Your task to perform on an android device: turn on location history Image 0: 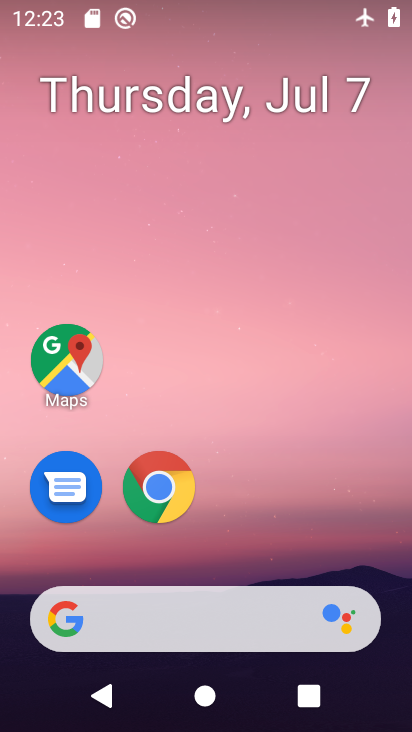
Step 0: drag from (358, 537) to (379, 147)
Your task to perform on an android device: turn on location history Image 1: 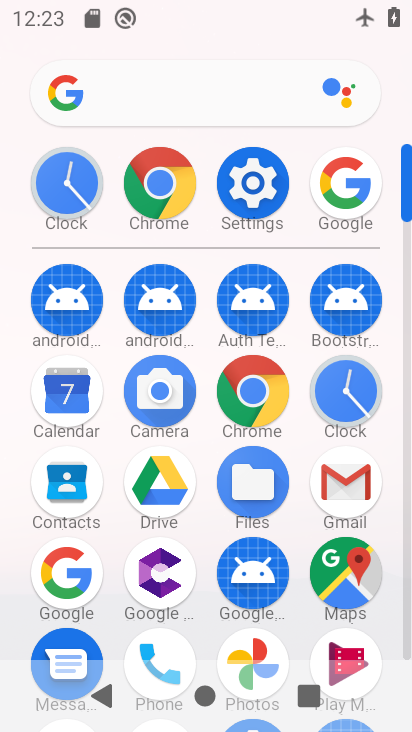
Step 1: click (259, 200)
Your task to perform on an android device: turn on location history Image 2: 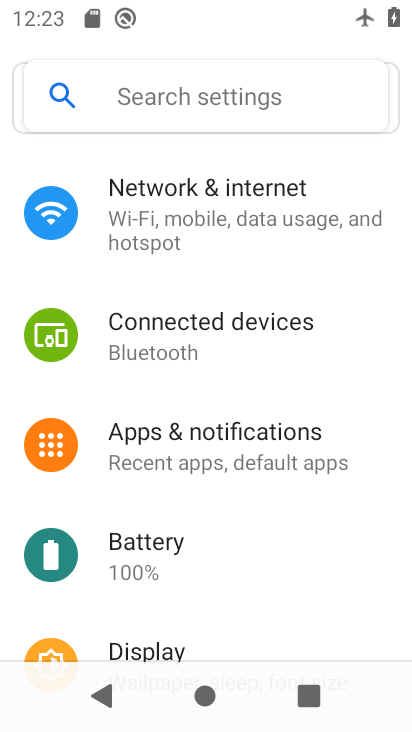
Step 2: drag from (367, 460) to (378, 317)
Your task to perform on an android device: turn on location history Image 3: 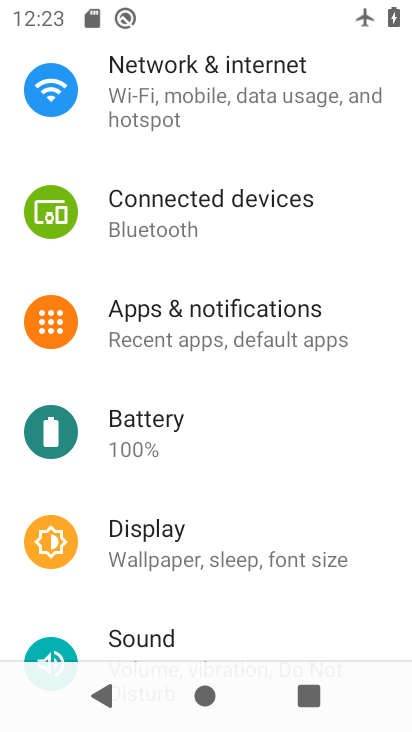
Step 3: drag from (355, 491) to (331, 338)
Your task to perform on an android device: turn on location history Image 4: 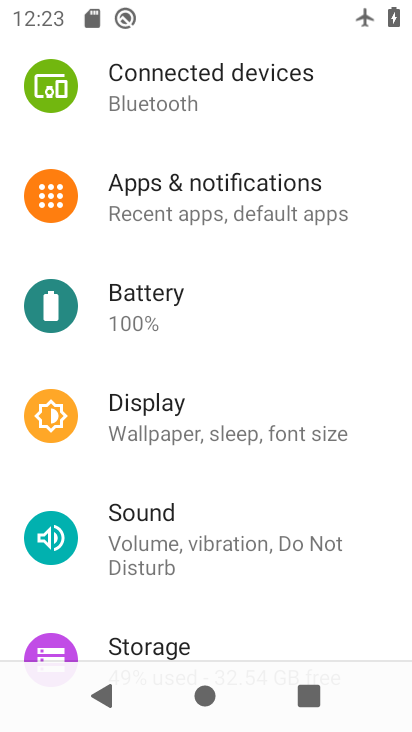
Step 4: drag from (372, 558) to (381, 419)
Your task to perform on an android device: turn on location history Image 5: 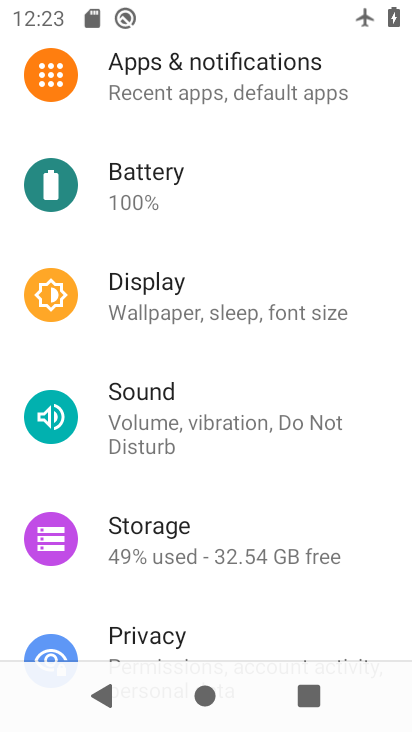
Step 5: drag from (361, 520) to (361, 378)
Your task to perform on an android device: turn on location history Image 6: 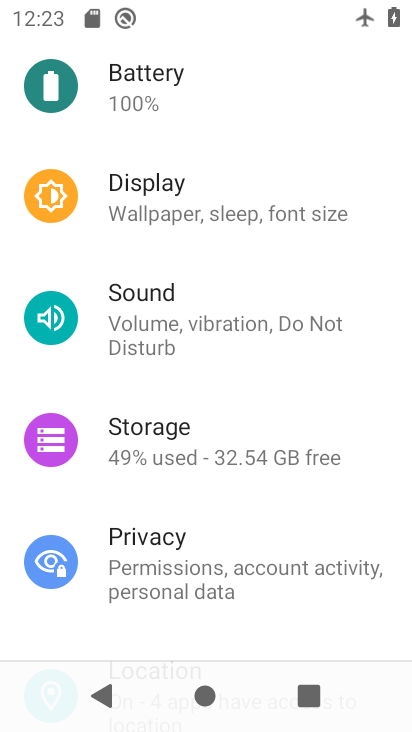
Step 6: drag from (369, 517) to (373, 355)
Your task to perform on an android device: turn on location history Image 7: 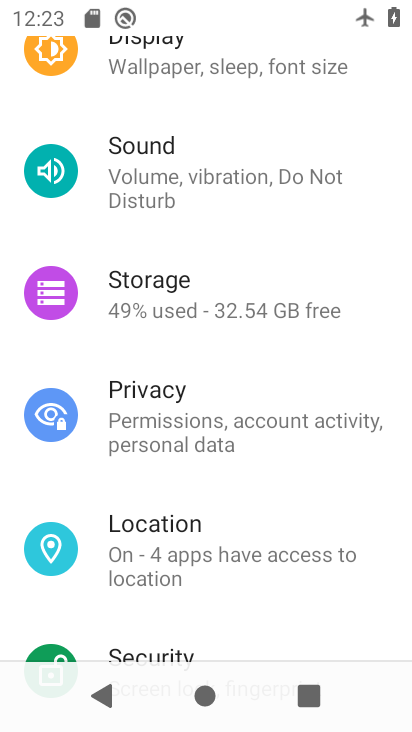
Step 7: drag from (378, 609) to (354, 458)
Your task to perform on an android device: turn on location history Image 8: 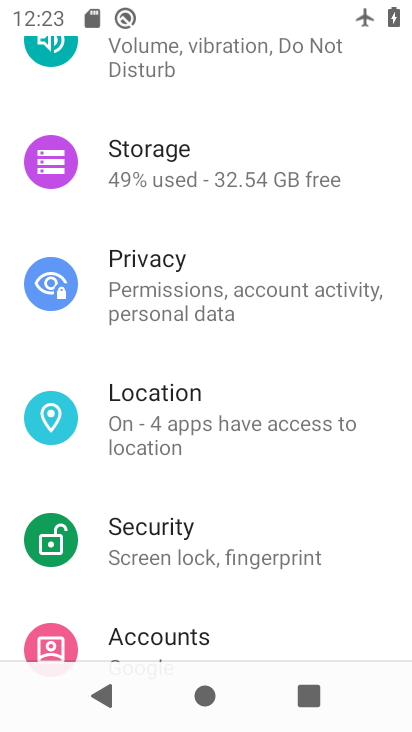
Step 8: drag from (337, 514) to (331, 372)
Your task to perform on an android device: turn on location history Image 9: 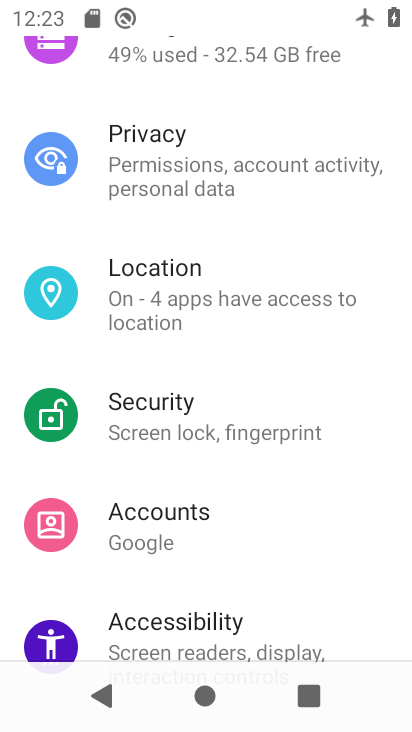
Step 9: drag from (342, 568) to (333, 384)
Your task to perform on an android device: turn on location history Image 10: 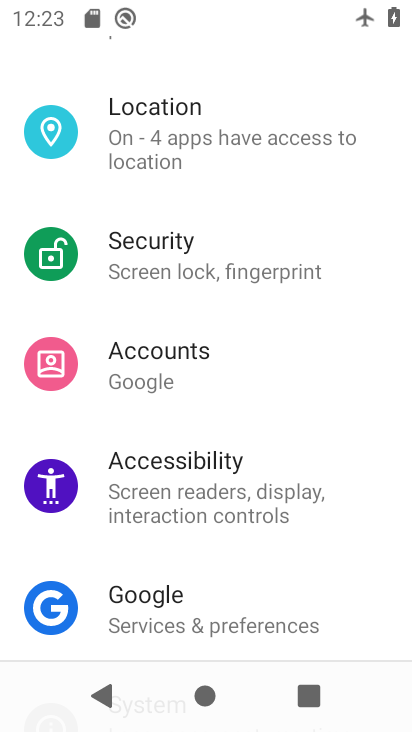
Step 10: drag from (343, 590) to (340, 437)
Your task to perform on an android device: turn on location history Image 11: 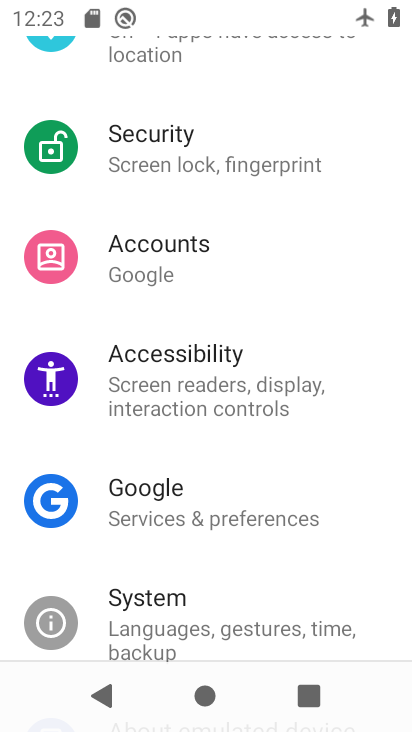
Step 11: drag from (355, 559) to (347, 414)
Your task to perform on an android device: turn on location history Image 12: 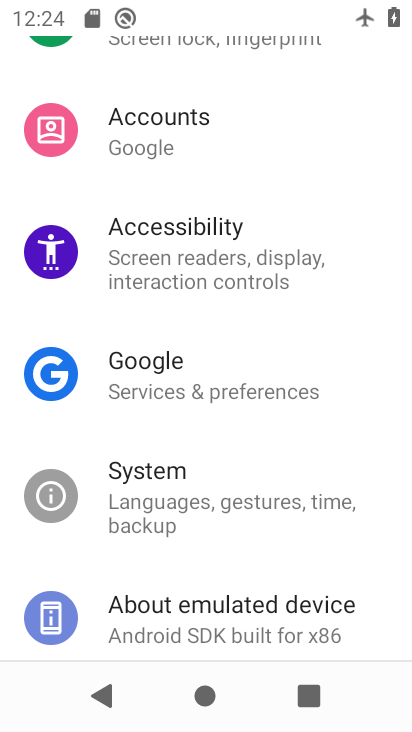
Step 12: drag from (337, 206) to (353, 387)
Your task to perform on an android device: turn on location history Image 13: 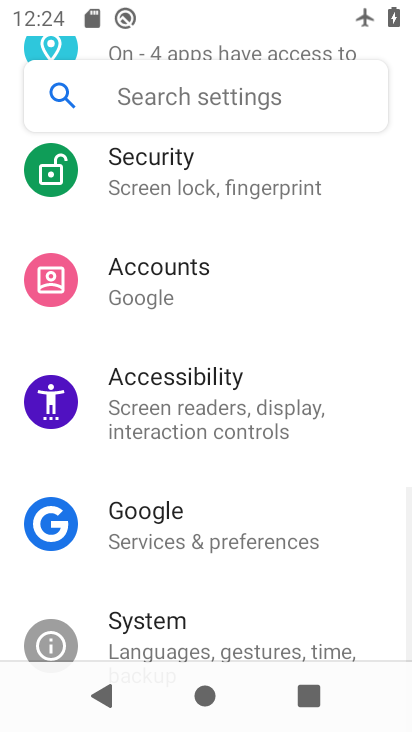
Step 13: drag from (354, 181) to (361, 344)
Your task to perform on an android device: turn on location history Image 14: 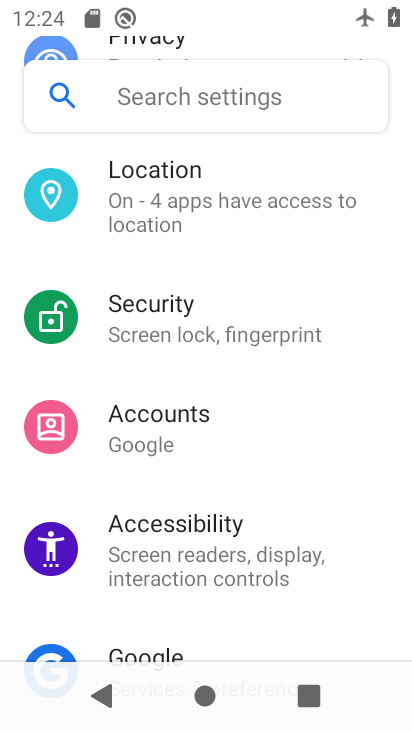
Step 14: click (292, 197)
Your task to perform on an android device: turn on location history Image 15: 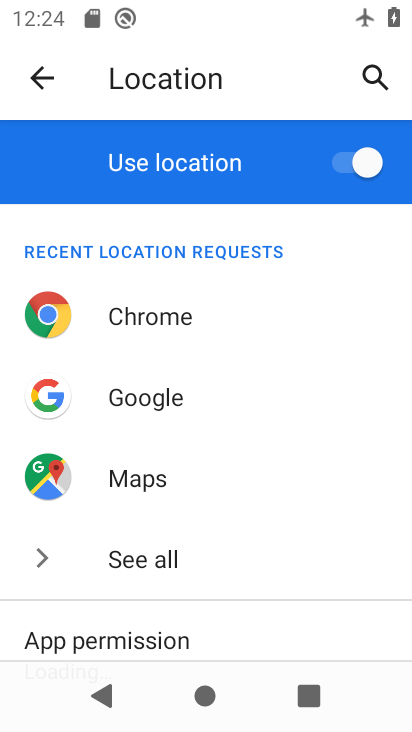
Step 15: drag from (326, 489) to (316, 334)
Your task to perform on an android device: turn on location history Image 16: 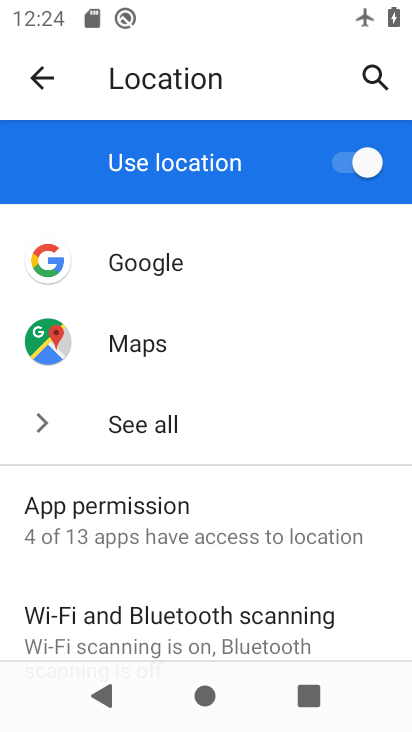
Step 16: drag from (319, 571) to (305, 399)
Your task to perform on an android device: turn on location history Image 17: 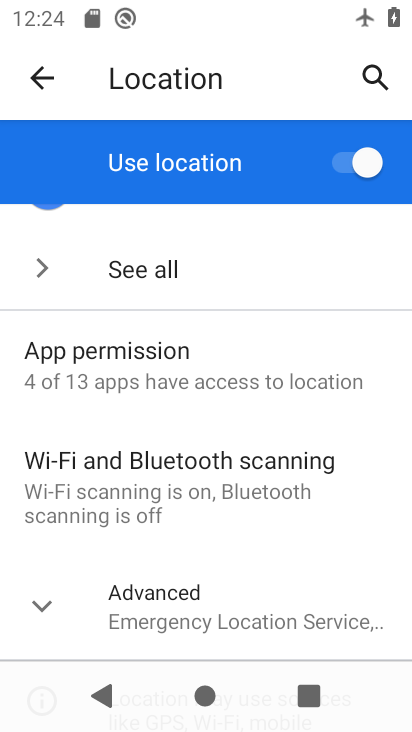
Step 17: drag from (321, 537) to (322, 367)
Your task to perform on an android device: turn on location history Image 18: 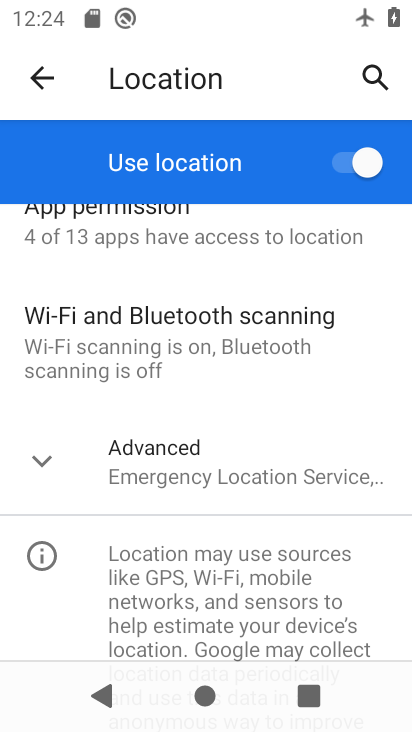
Step 18: drag from (370, 592) to (354, 384)
Your task to perform on an android device: turn on location history Image 19: 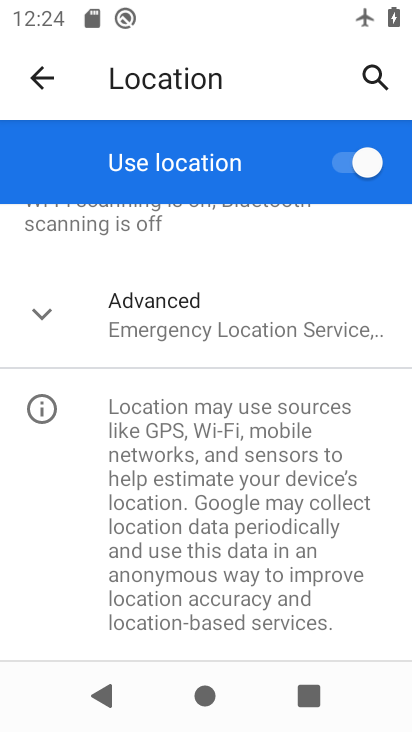
Step 19: click (279, 318)
Your task to perform on an android device: turn on location history Image 20: 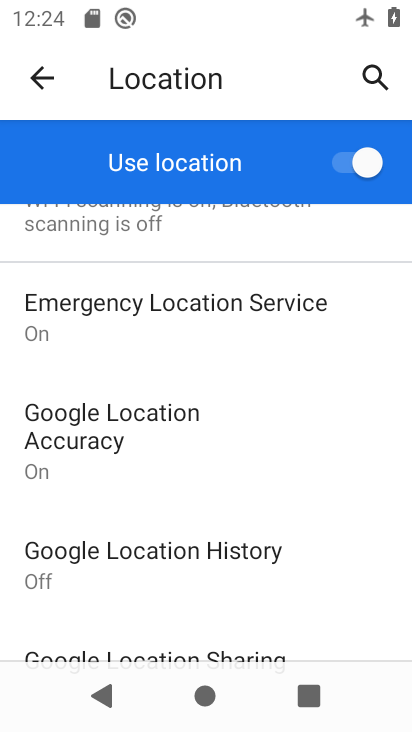
Step 20: drag from (339, 524) to (337, 390)
Your task to perform on an android device: turn on location history Image 21: 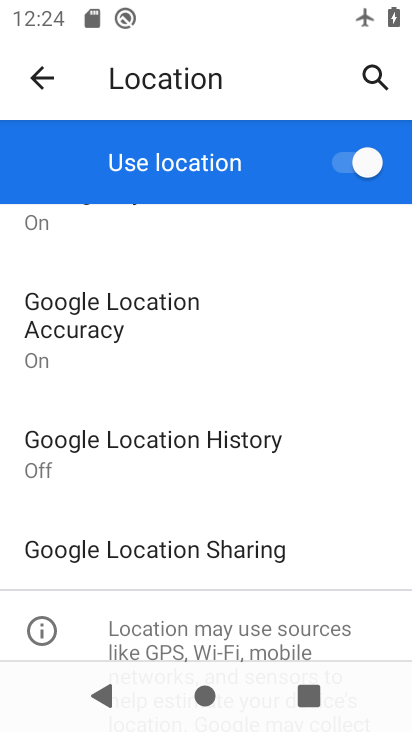
Step 21: click (175, 454)
Your task to perform on an android device: turn on location history Image 22: 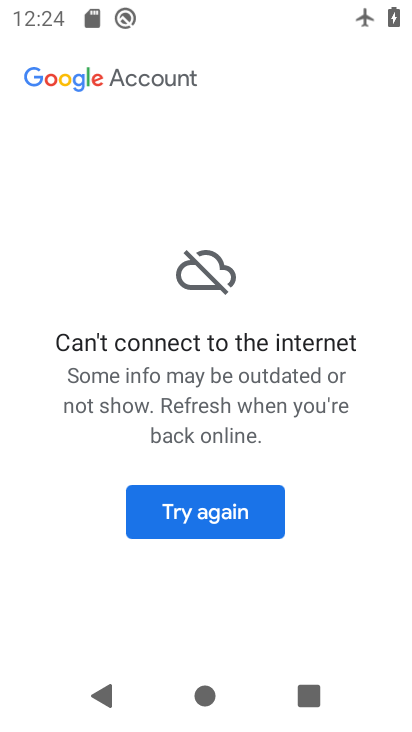
Step 22: task complete